Your task to perform on an android device: turn off priority inbox in the gmail app Image 0: 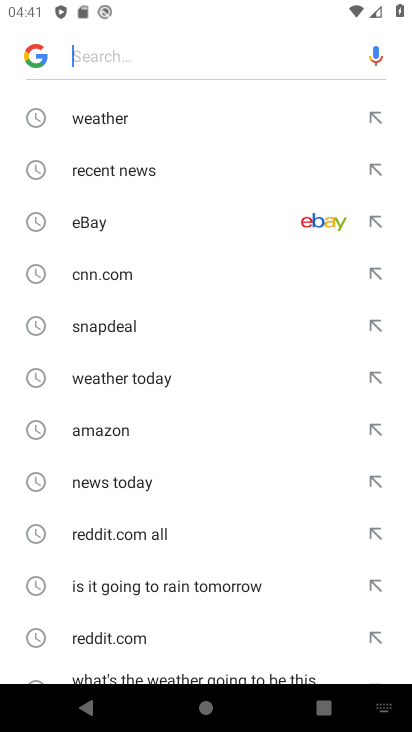
Step 0: press home button
Your task to perform on an android device: turn off priority inbox in the gmail app Image 1: 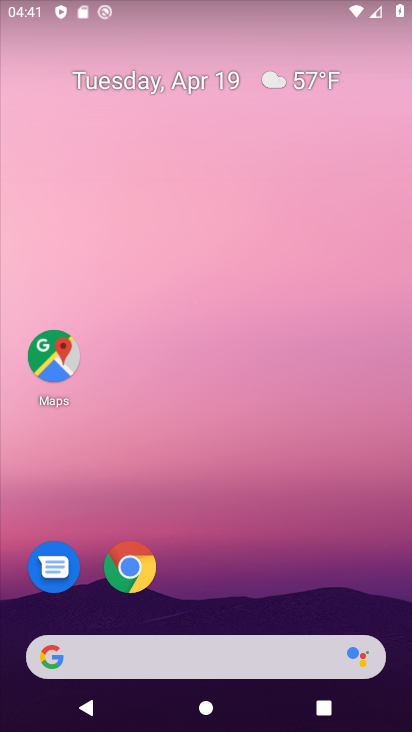
Step 1: drag from (356, 600) to (348, 164)
Your task to perform on an android device: turn off priority inbox in the gmail app Image 2: 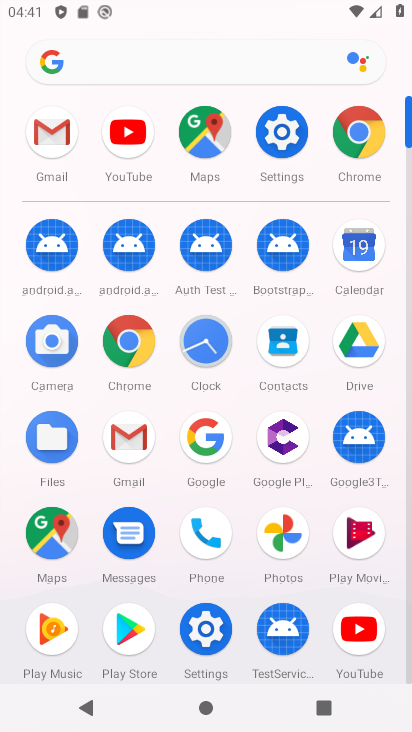
Step 2: click (130, 448)
Your task to perform on an android device: turn off priority inbox in the gmail app Image 3: 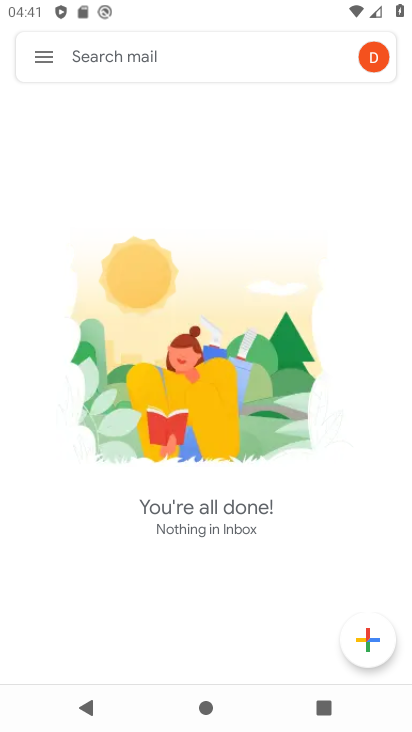
Step 3: click (40, 56)
Your task to perform on an android device: turn off priority inbox in the gmail app Image 4: 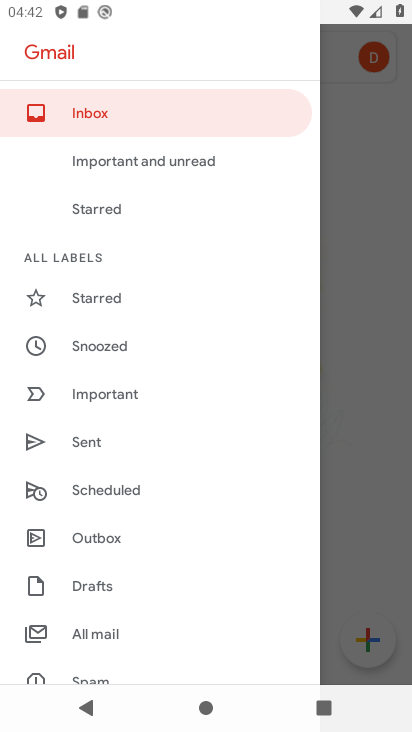
Step 4: drag from (256, 589) to (261, 490)
Your task to perform on an android device: turn off priority inbox in the gmail app Image 5: 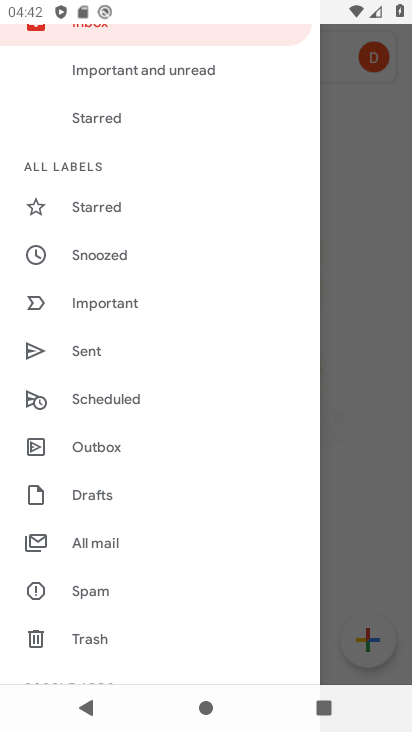
Step 5: drag from (259, 573) to (264, 472)
Your task to perform on an android device: turn off priority inbox in the gmail app Image 6: 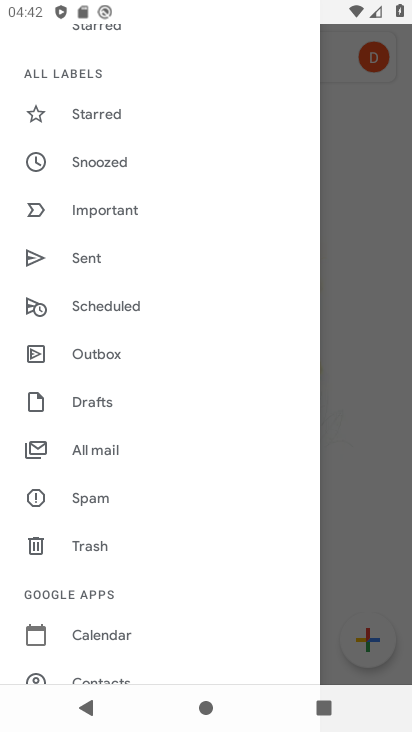
Step 6: drag from (253, 585) to (258, 445)
Your task to perform on an android device: turn off priority inbox in the gmail app Image 7: 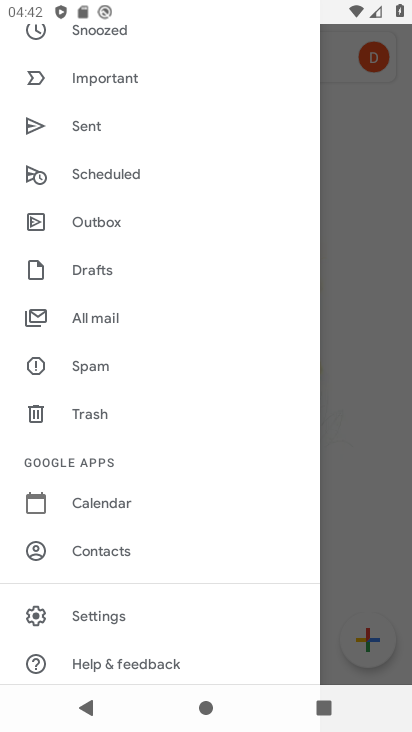
Step 7: drag from (245, 594) to (233, 491)
Your task to perform on an android device: turn off priority inbox in the gmail app Image 8: 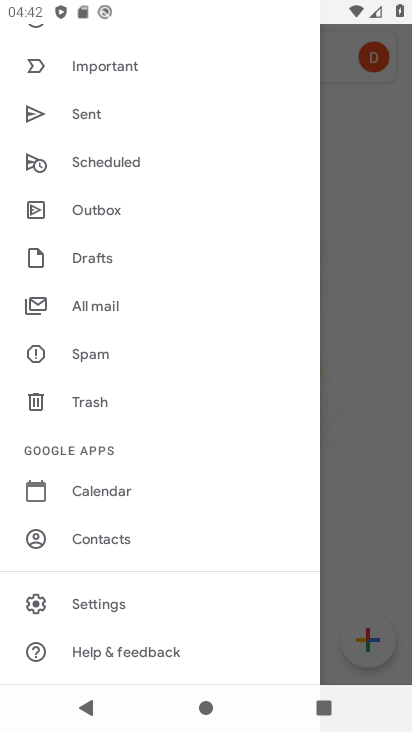
Step 8: click (120, 610)
Your task to perform on an android device: turn off priority inbox in the gmail app Image 9: 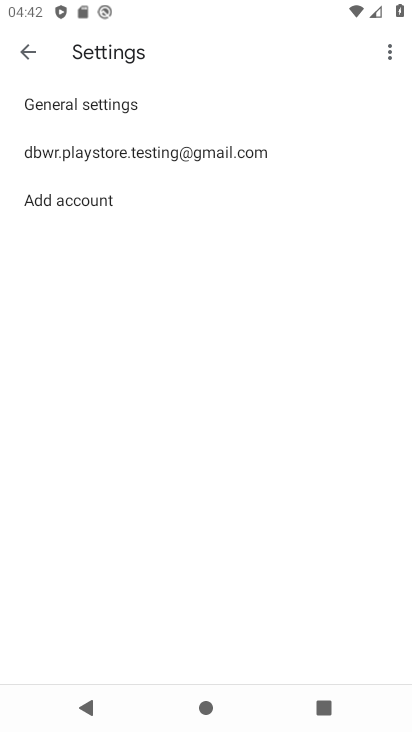
Step 9: click (213, 144)
Your task to perform on an android device: turn off priority inbox in the gmail app Image 10: 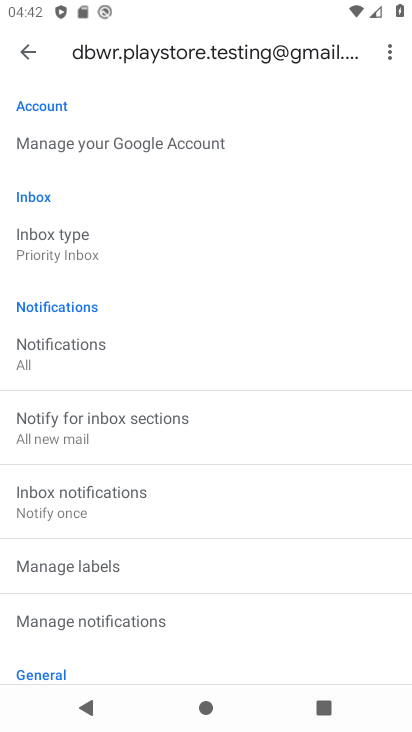
Step 10: drag from (310, 562) to (315, 470)
Your task to perform on an android device: turn off priority inbox in the gmail app Image 11: 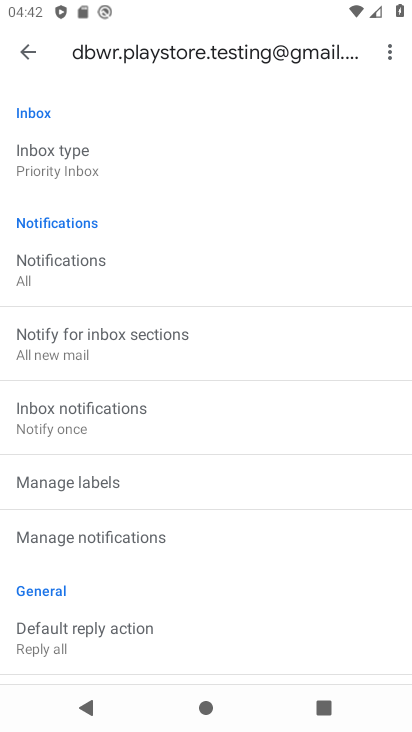
Step 11: drag from (296, 552) to (302, 421)
Your task to perform on an android device: turn off priority inbox in the gmail app Image 12: 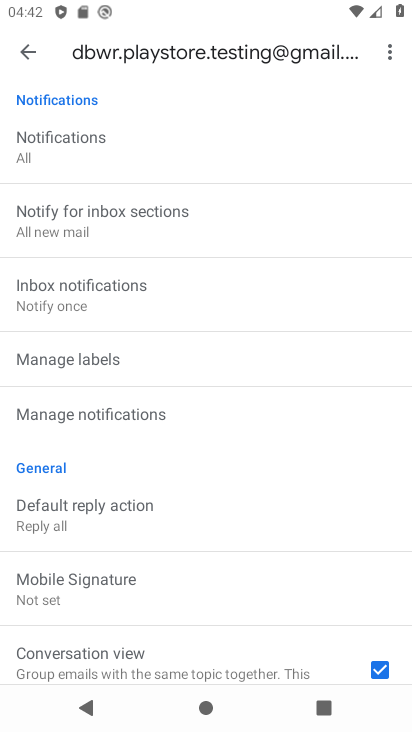
Step 12: drag from (316, 564) to (317, 454)
Your task to perform on an android device: turn off priority inbox in the gmail app Image 13: 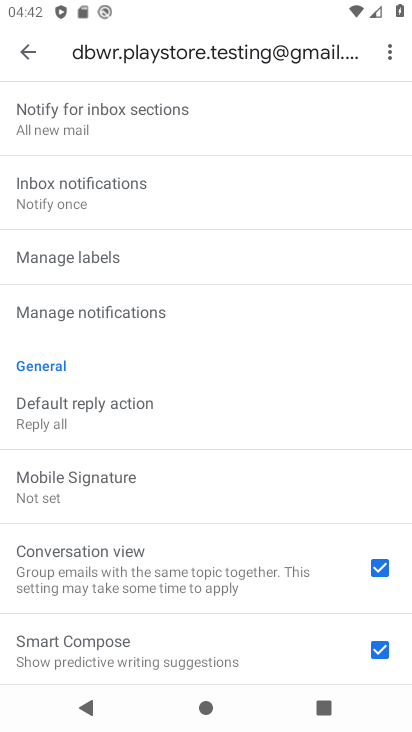
Step 13: drag from (285, 614) to (320, 492)
Your task to perform on an android device: turn off priority inbox in the gmail app Image 14: 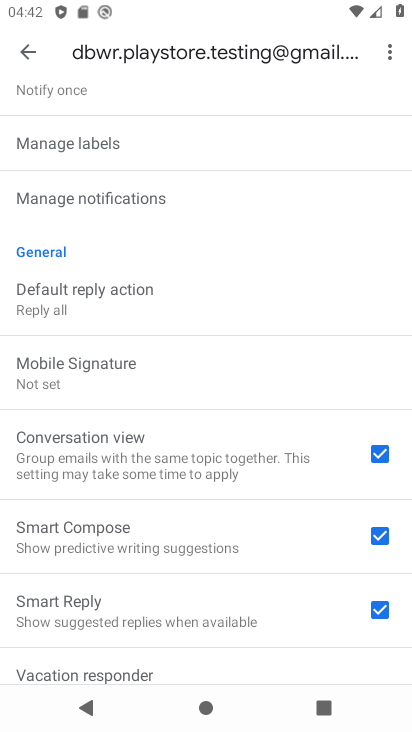
Step 14: drag from (295, 618) to (300, 436)
Your task to perform on an android device: turn off priority inbox in the gmail app Image 15: 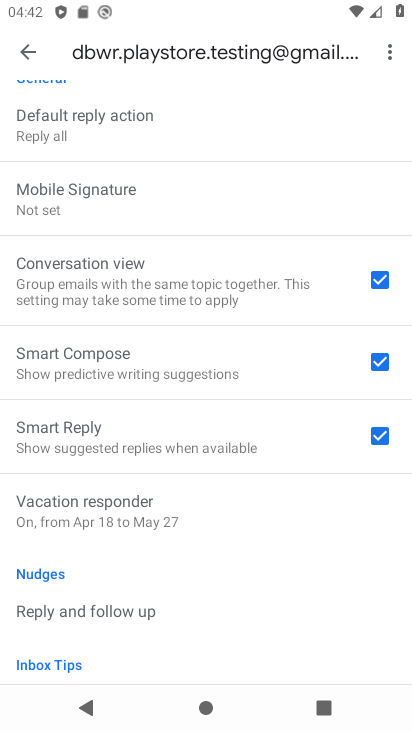
Step 15: drag from (304, 339) to (295, 462)
Your task to perform on an android device: turn off priority inbox in the gmail app Image 16: 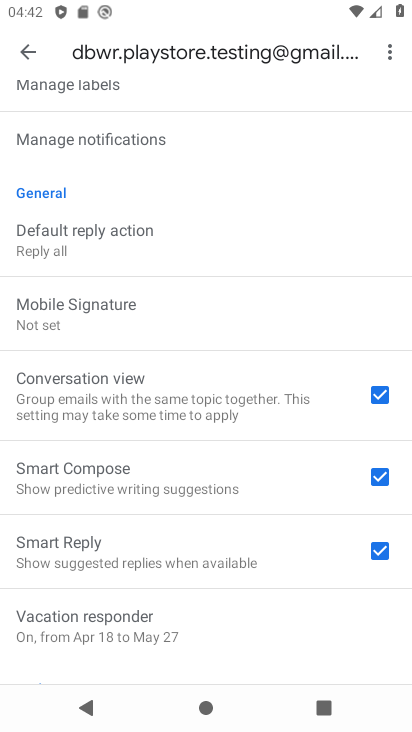
Step 16: drag from (307, 299) to (307, 444)
Your task to perform on an android device: turn off priority inbox in the gmail app Image 17: 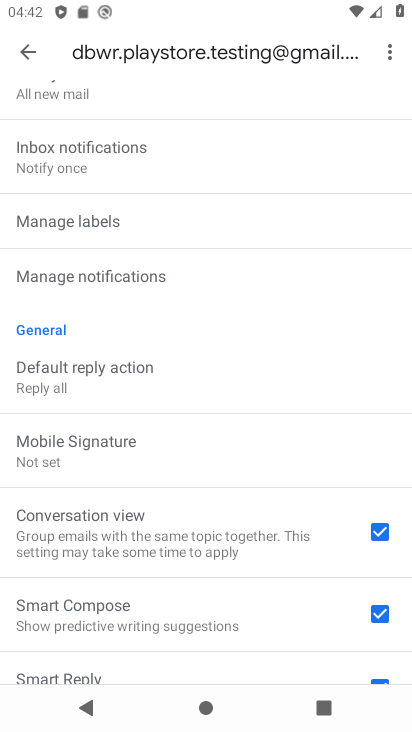
Step 17: drag from (299, 290) to (287, 429)
Your task to perform on an android device: turn off priority inbox in the gmail app Image 18: 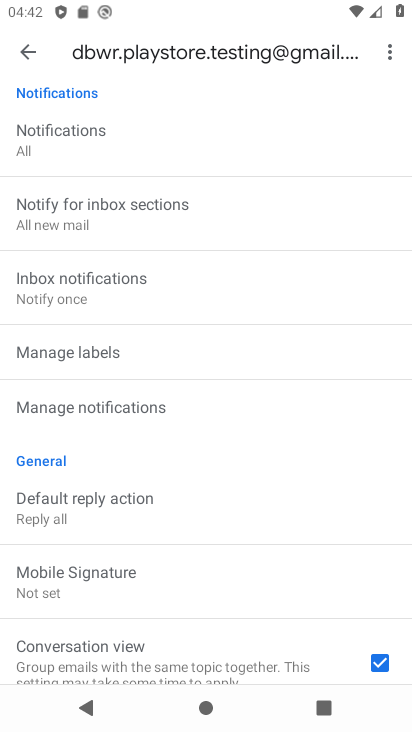
Step 18: drag from (268, 212) to (265, 380)
Your task to perform on an android device: turn off priority inbox in the gmail app Image 19: 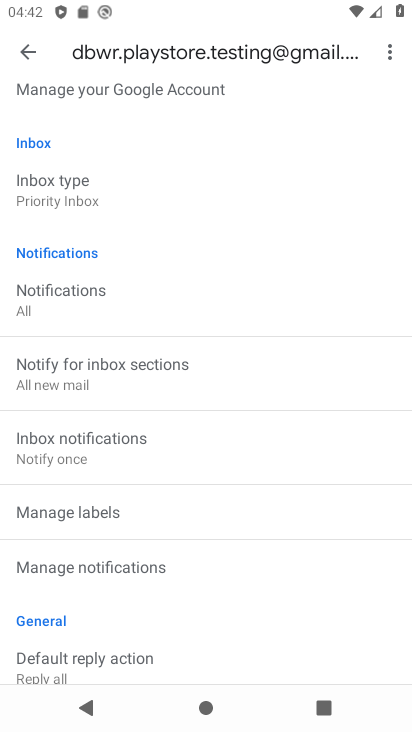
Step 19: click (58, 197)
Your task to perform on an android device: turn off priority inbox in the gmail app Image 20: 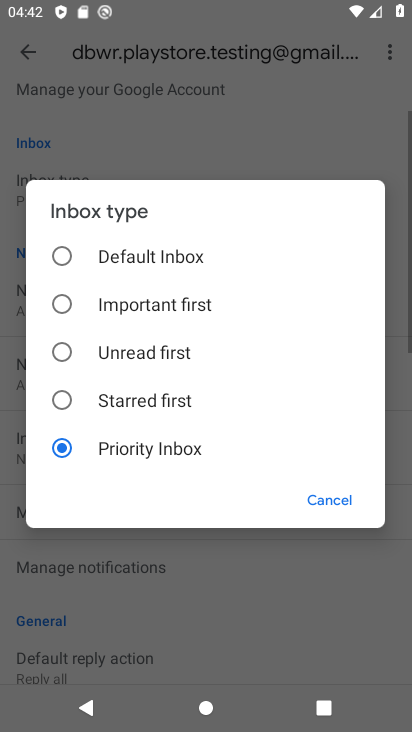
Step 20: click (154, 264)
Your task to perform on an android device: turn off priority inbox in the gmail app Image 21: 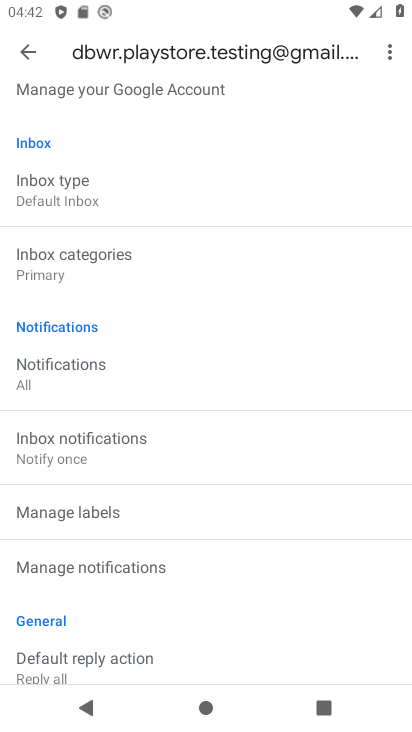
Step 21: task complete